Your task to perform on an android device: open a new tab in the chrome app Image 0: 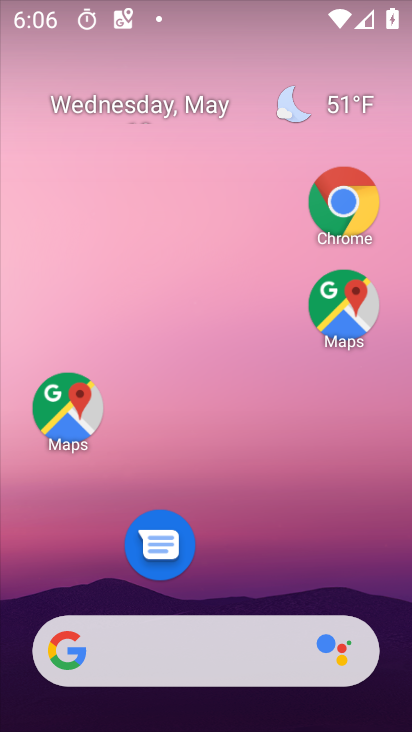
Step 0: drag from (222, 580) to (173, 98)
Your task to perform on an android device: open a new tab in the chrome app Image 1: 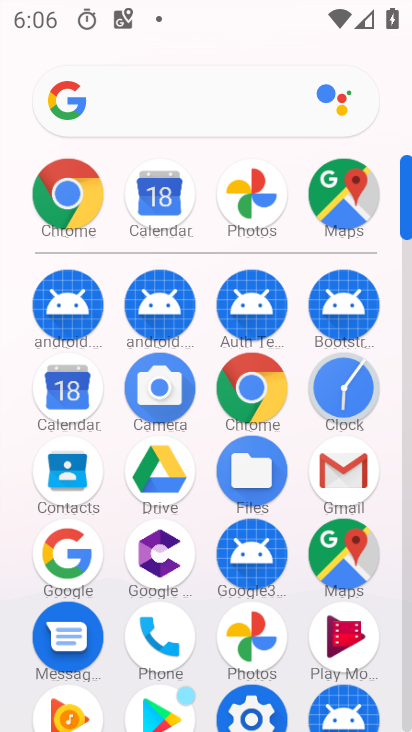
Step 1: click (83, 201)
Your task to perform on an android device: open a new tab in the chrome app Image 2: 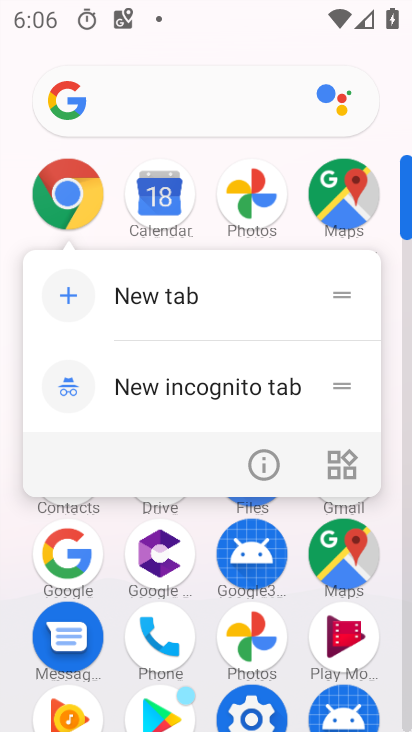
Step 2: click (129, 300)
Your task to perform on an android device: open a new tab in the chrome app Image 3: 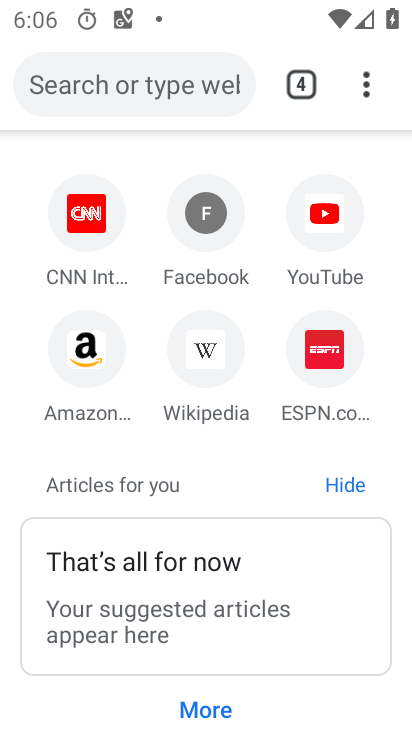
Step 3: task complete